Your task to perform on an android device: Search for seafood restaurants on Google Maps Image 0: 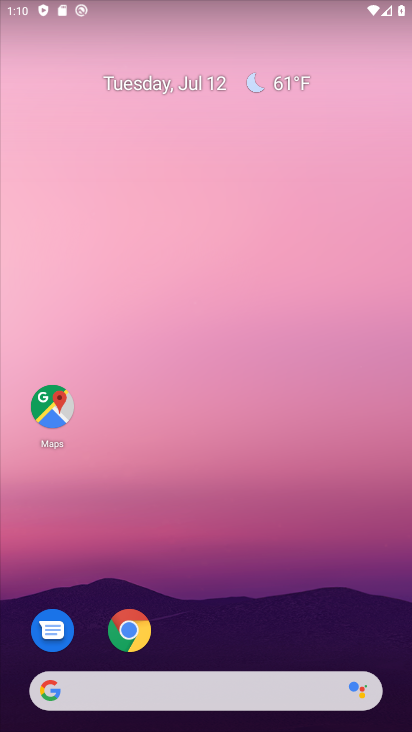
Step 0: click (70, 417)
Your task to perform on an android device: Search for seafood restaurants on Google Maps Image 1: 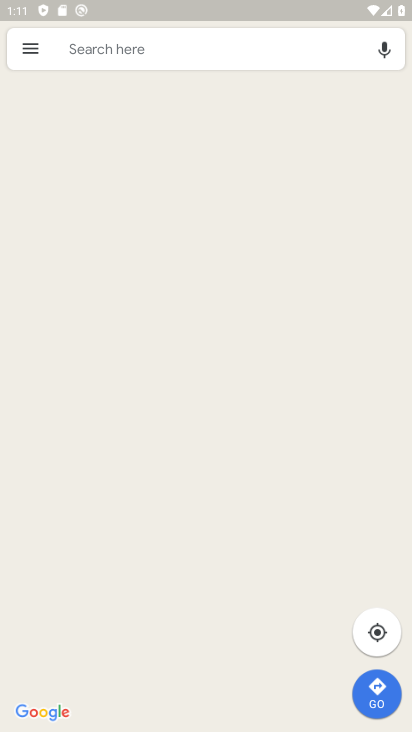
Step 1: click (212, 63)
Your task to perform on an android device: Search for seafood restaurants on Google Maps Image 2: 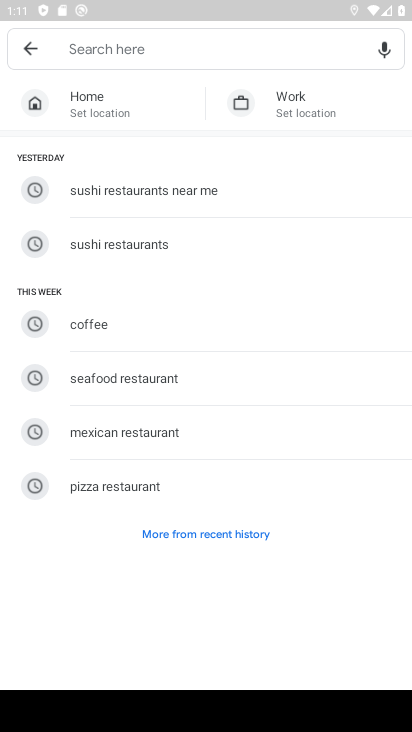
Step 2: type "seafood restaurants"
Your task to perform on an android device: Search for seafood restaurants on Google Maps Image 3: 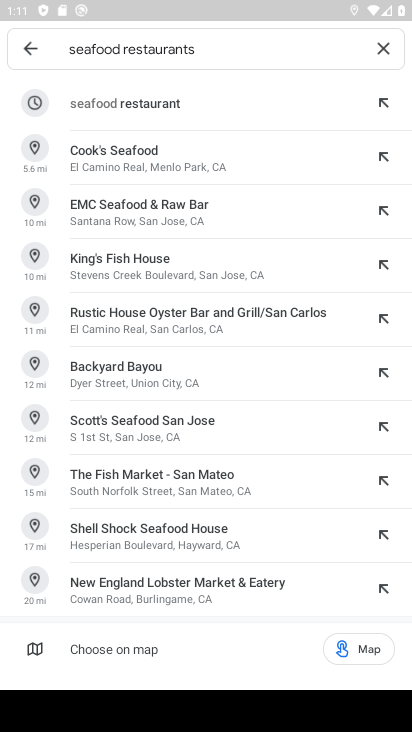
Step 3: click (160, 122)
Your task to perform on an android device: Search for seafood restaurants on Google Maps Image 4: 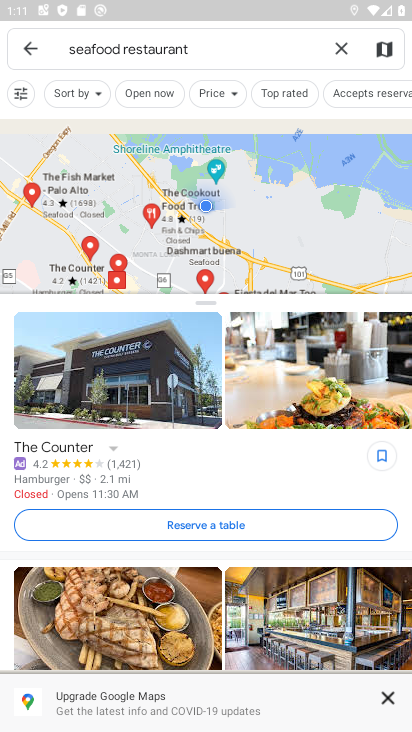
Step 4: task complete